Your task to perform on an android device: Empty the shopping cart on target.com. Search for usb-c on target.com, select the first entry, and add it to the cart. Image 0: 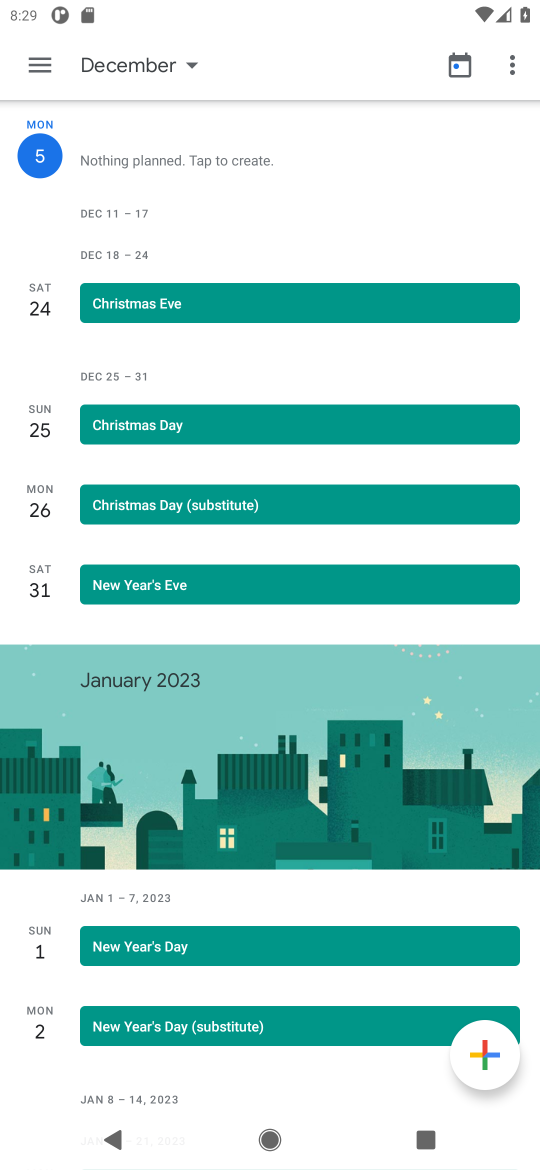
Step 0: press home button
Your task to perform on an android device: Empty the shopping cart on target.com. Search for usb-c on target.com, select the first entry, and add it to the cart. Image 1: 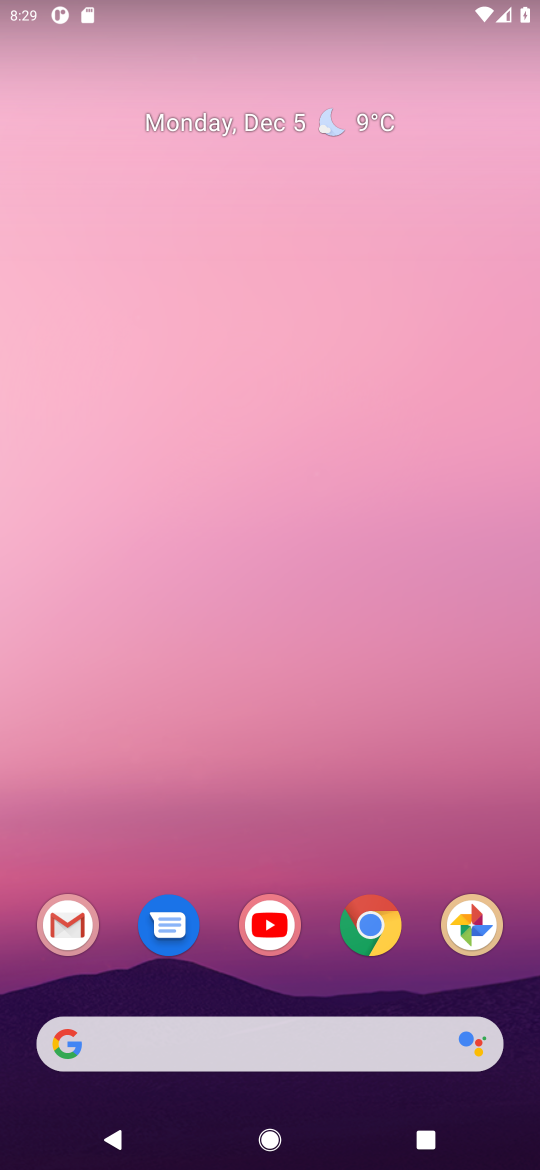
Step 1: click (371, 931)
Your task to perform on an android device: Empty the shopping cart on target.com. Search for usb-c on target.com, select the first entry, and add it to the cart. Image 2: 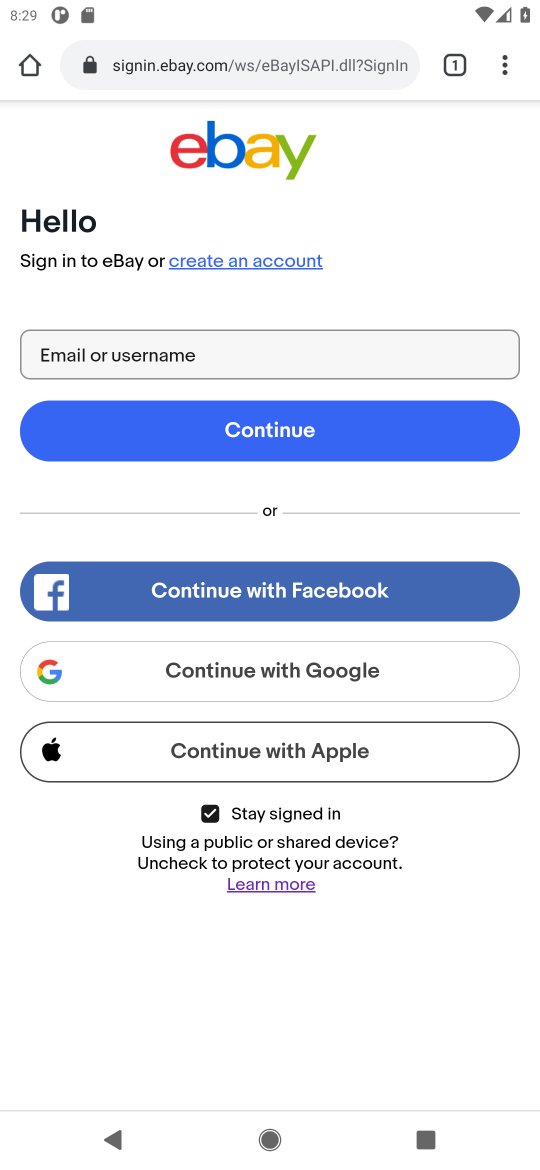
Step 2: click (204, 73)
Your task to perform on an android device: Empty the shopping cart on target.com. Search for usb-c on target.com, select the first entry, and add it to the cart. Image 3: 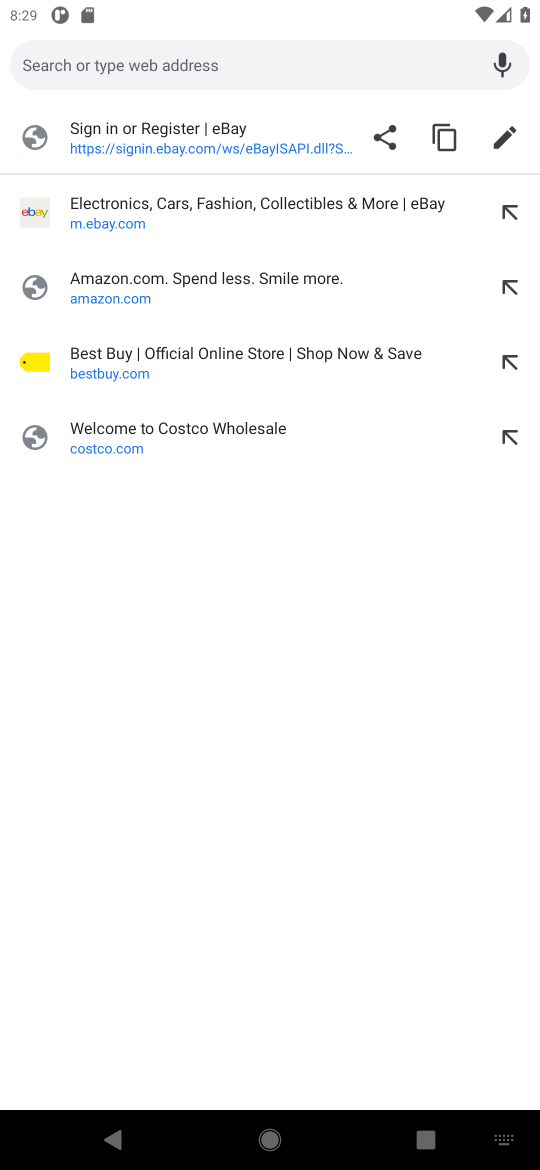
Step 3: type "target.com"
Your task to perform on an android device: Empty the shopping cart on target.com. Search for usb-c on target.com, select the first entry, and add it to the cart. Image 4: 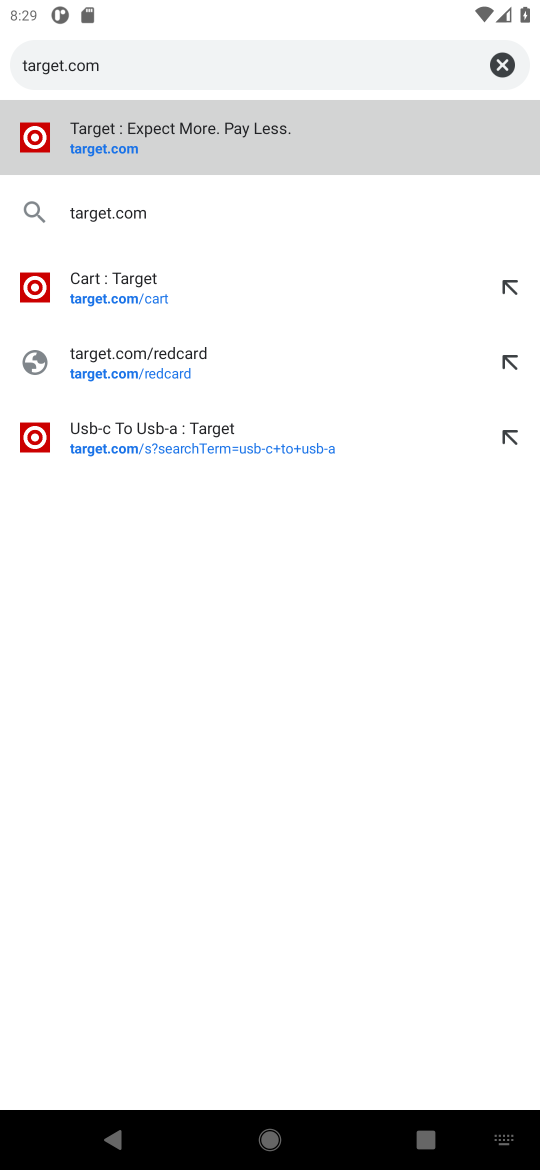
Step 4: click (112, 143)
Your task to perform on an android device: Empty the shopping cart on target.com. Search for usb-c on target.com, select the first entry, and add it to the cart. Image 5: 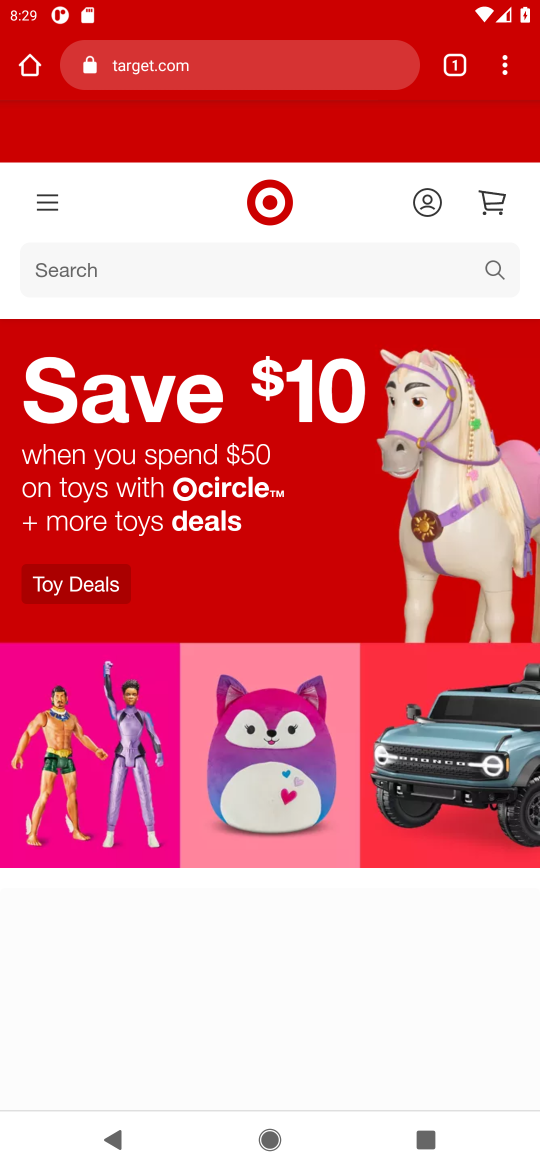
Step 5: click (490, 205)
Your task to perform on an android device: Empty the shopping cart on target.com. Search for usb-c on target.com, select the first entry, and add it to the cart. Image 6: 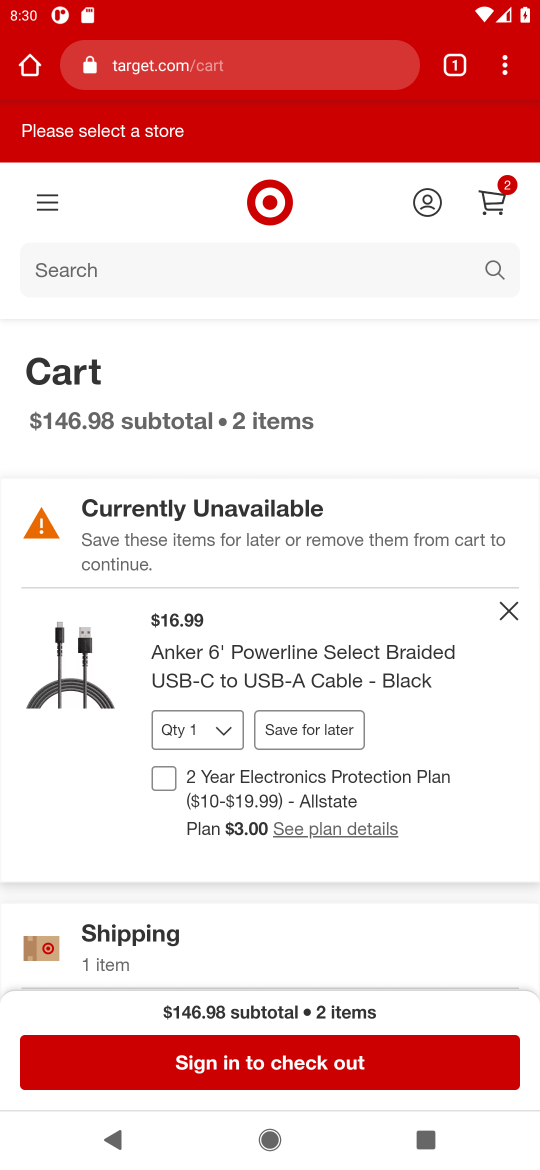
Step 6: click (510, 613)
Your task to perform on an android device: Empty the shopping cart on target.com. Search for usb-c on target.com, select the first entry, and add it to the cart. Image 7: 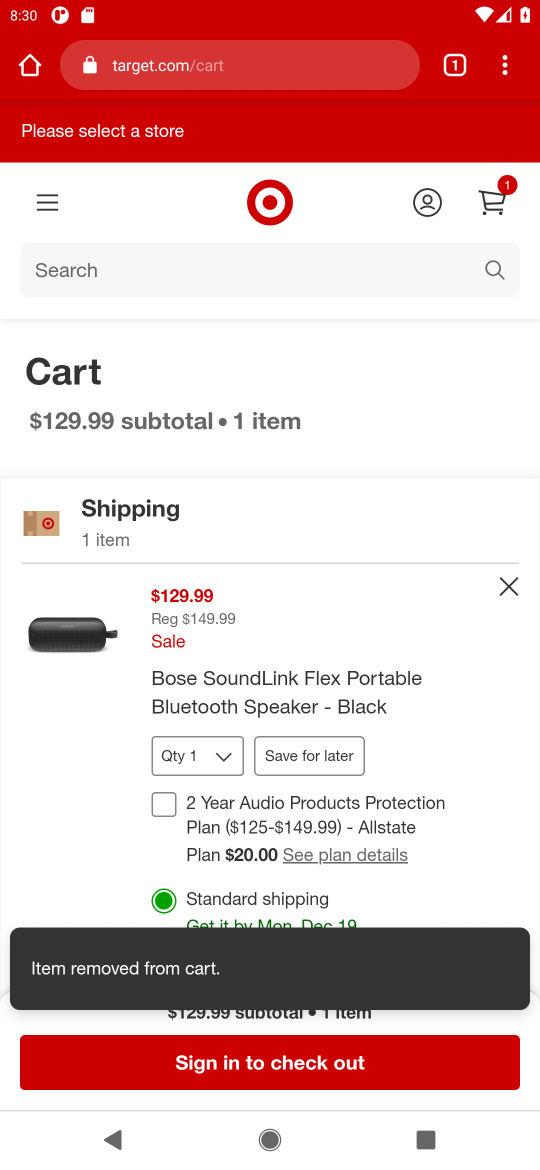
Step 7: click (513, 595)
Your task to perform on an android device: Empty the shopping cart on target.com. Search for usb-c on target.com, select the first entry, and add it to the cart. Image 8: 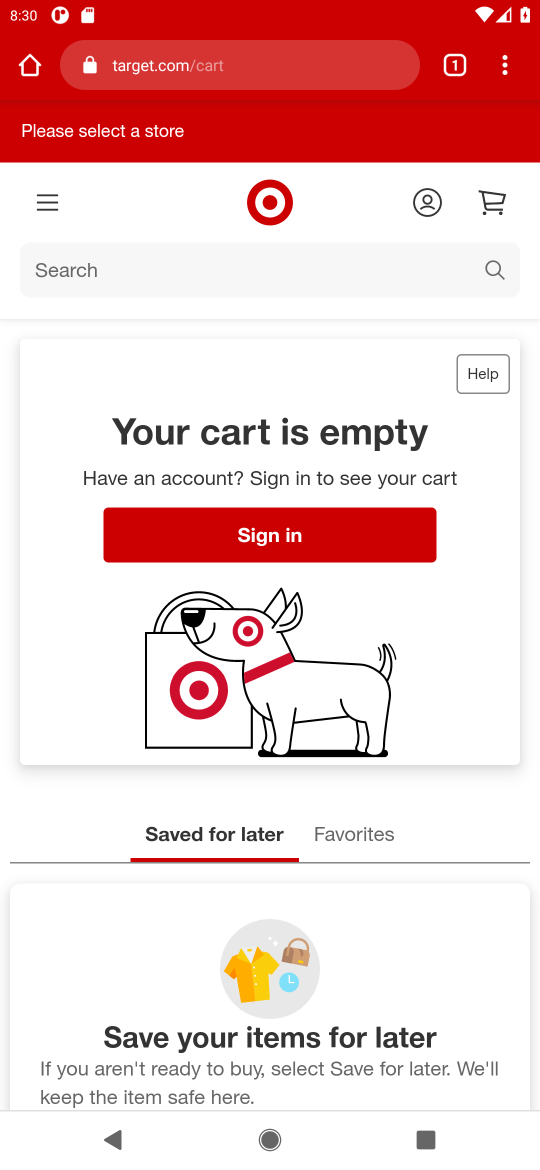
Step 8: click (88, 279)
Your task to perform on an android device: Empty the shopping cart on target.com. Search for usb-c on target.com, select the first entry, and add it to the cart. Image 9: 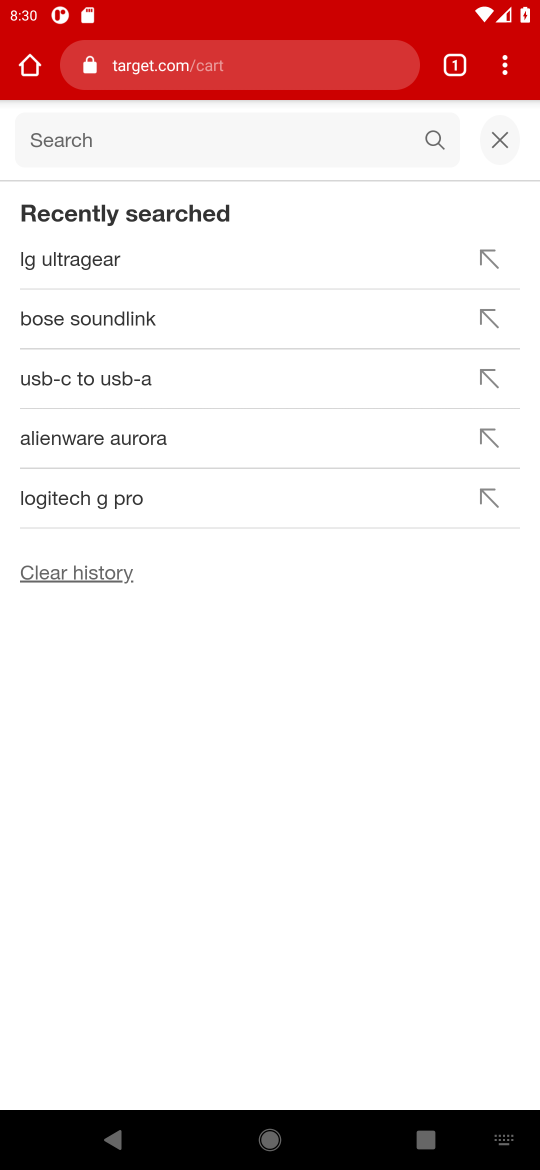
Step 9: type "usb-c"
Your task to perform on an android device: Empty the shopping cart on target.com. Search for usb-c on target.com, select the first entry, and add it to the cart. Image 10: 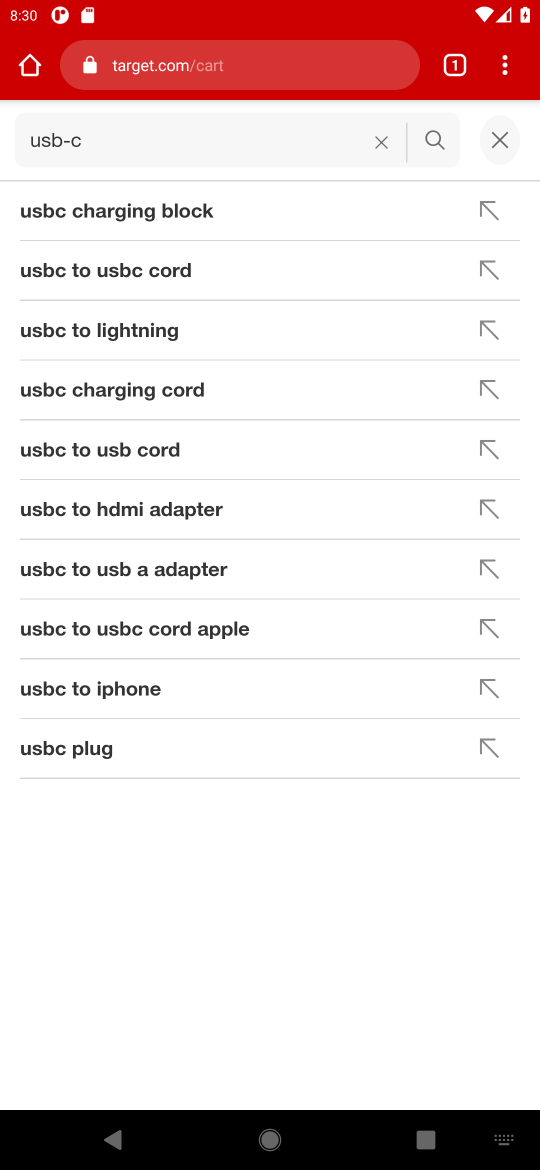
Step 10: click (424, 138)
Your task to perform on an android device: Empty the shopping cart on target.com. Search for usb-c on target.com, select the first entry, and add it to the cart. Image 11: 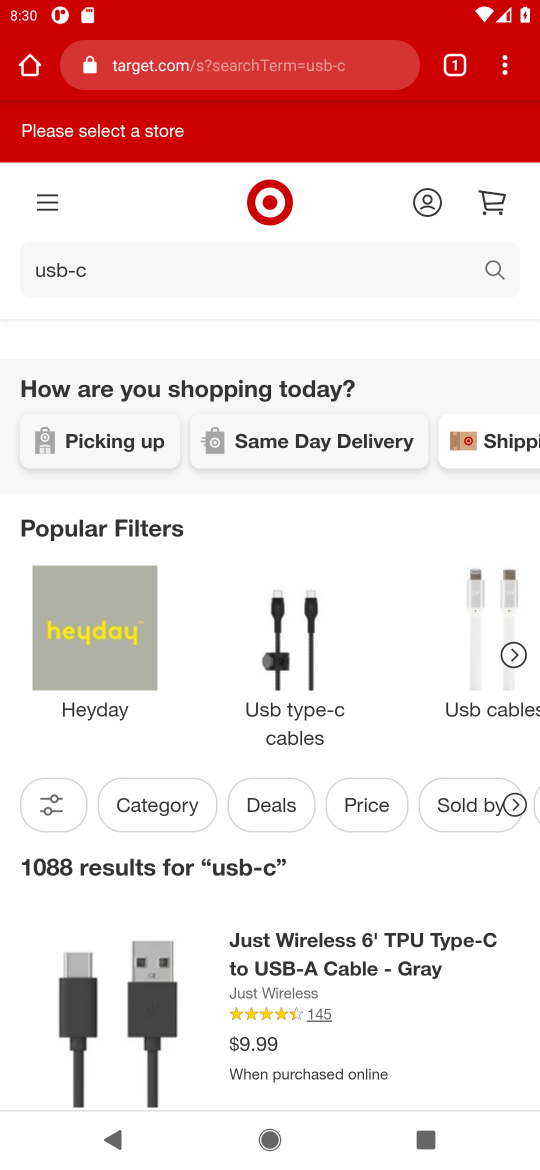
Step 11: task complete